Your task to perform on an android device: add a contact Image 0: 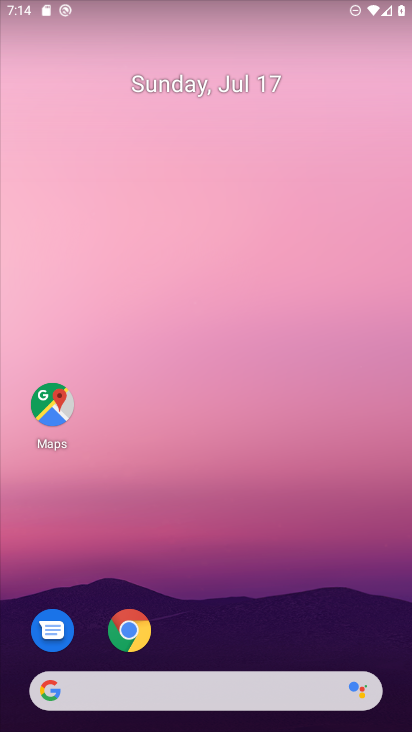
Step 0: drag from (321, 620) to (248, 108)
Your task to perform on an android device: add a contact Image 1: 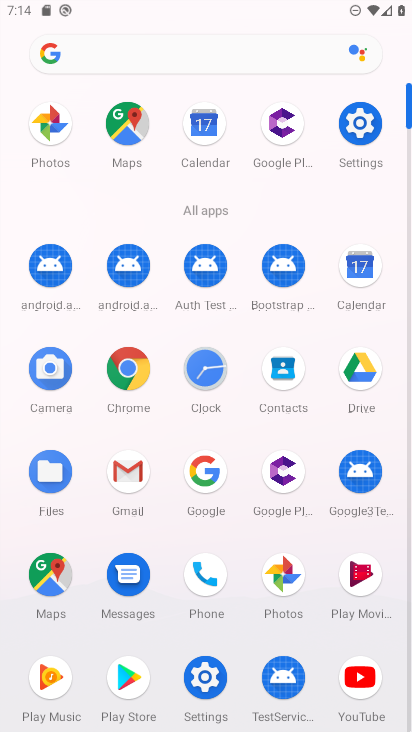
Step 1: click (284, 375)
Your task to perform on an android device: add a contact Image 2: 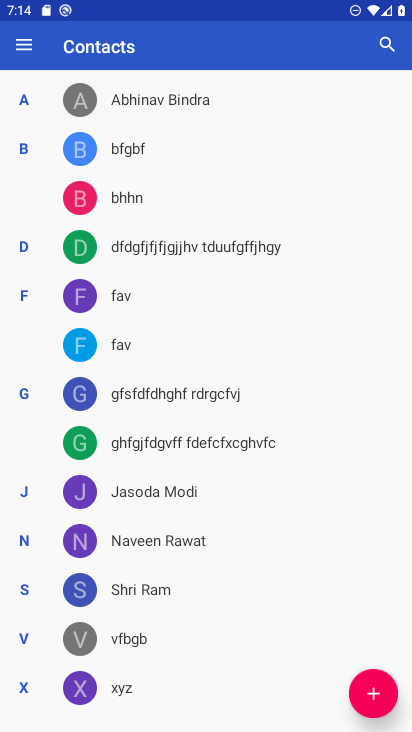
Step 2: click (366, 691)
Your task to perform on an android device: add a contact Image 3: 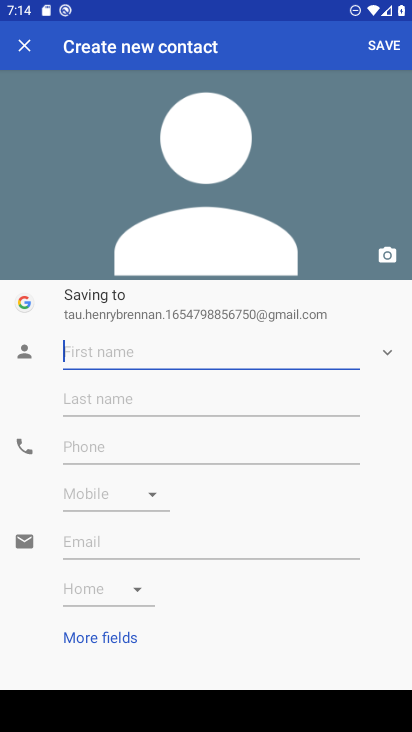
Step 3: type "rita"
Your task to perform on an android device: add a contact Image 4: 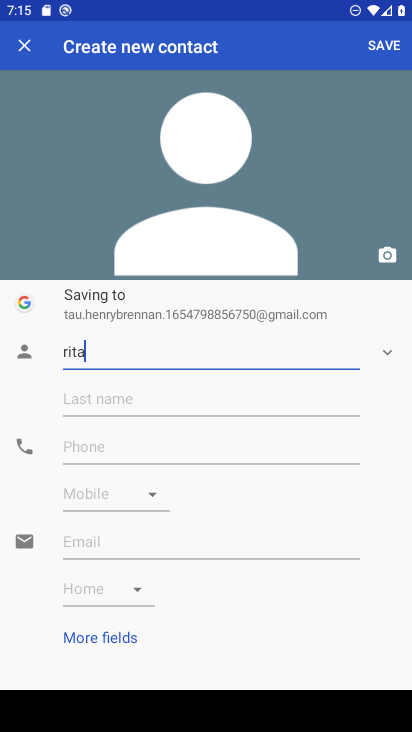
Step 4: click (379, 44)
Your task to perform on an android device: add a contact Image 5: 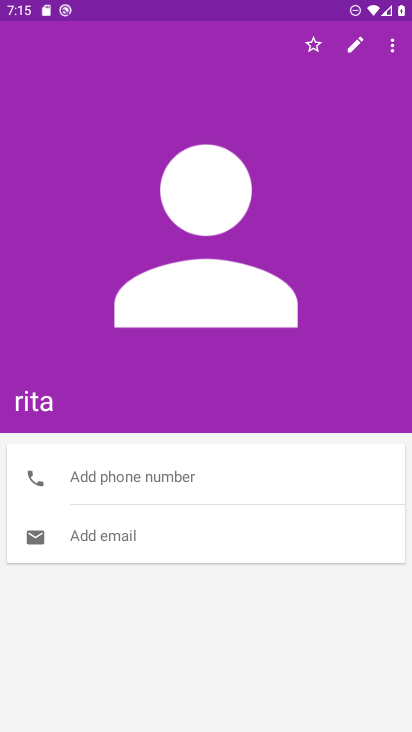
Step 5: task complete